Your task to perform on an android device: Open Yahoo.com Image 0: 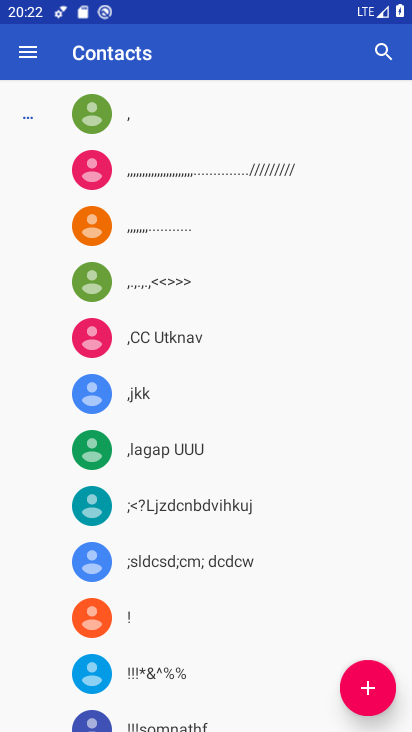
Step 0: drag from (159, 609) to (326, 216)
Your task to perform on an android device: Open Yahoo.com Image 1: 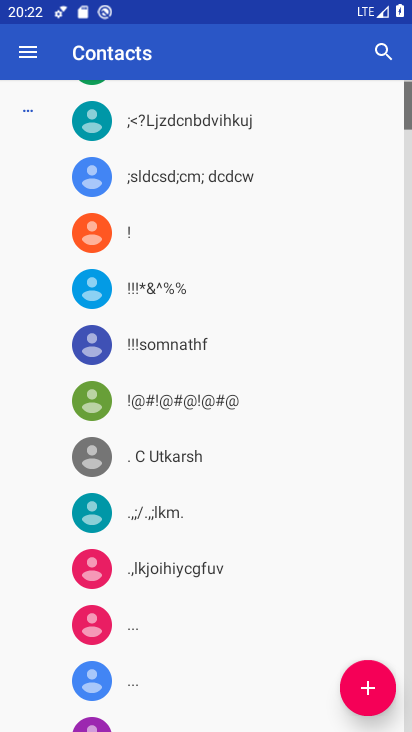
Step 1: press home button
Your task to perform on an android device: Open Yahoo.com Image 2: 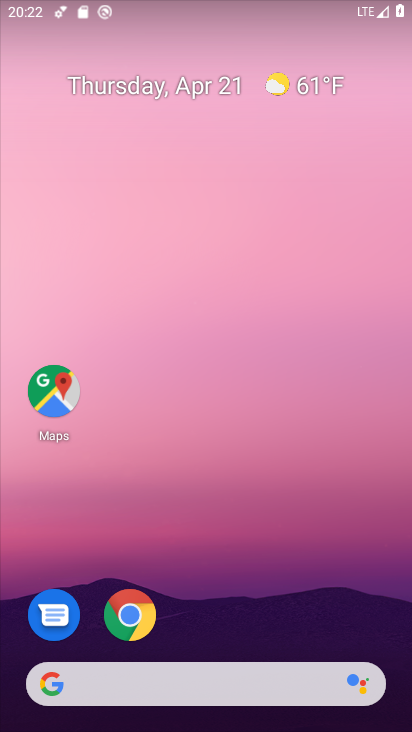
Step 2: click (126, 601)
Your task to perform on an android device: Open Yahoo.com Image 3: 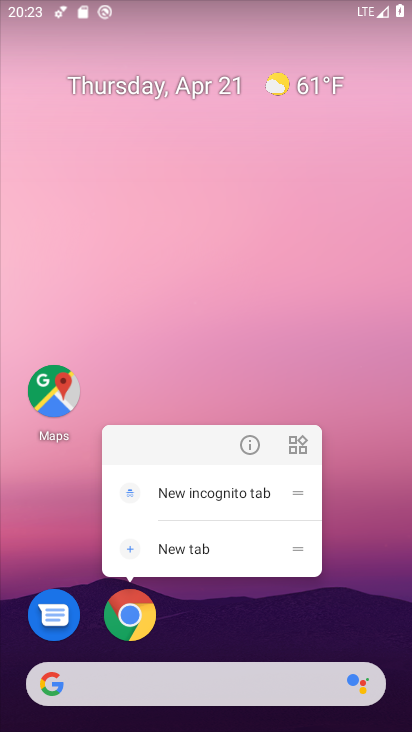
Step 3: click (250, 447)
Your task to perform on an android device: Open Yahoo.com Image 4: 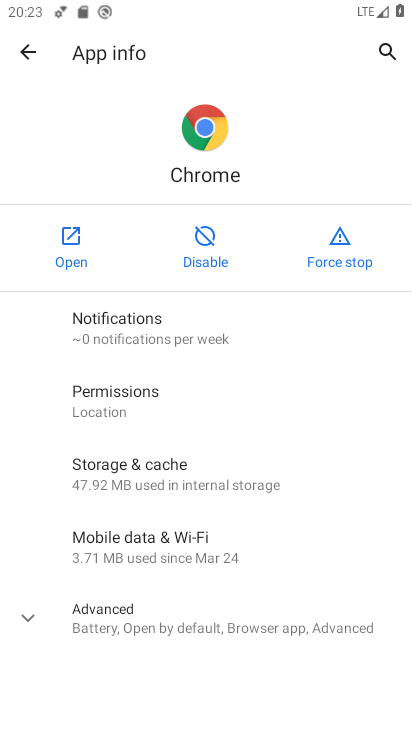
Step 4: click (69, 202)
Your task to perform on an android device: Open Yahoo.com Image 5: 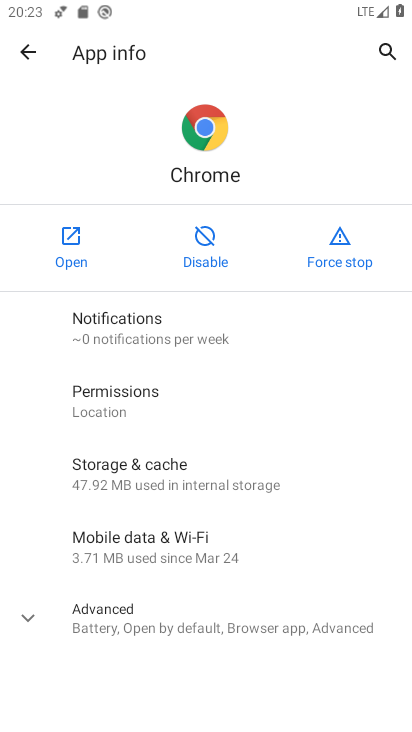
Step 5: click (74, 223)
Your task to perform on an android device: Open Yahoo.com Image 6: 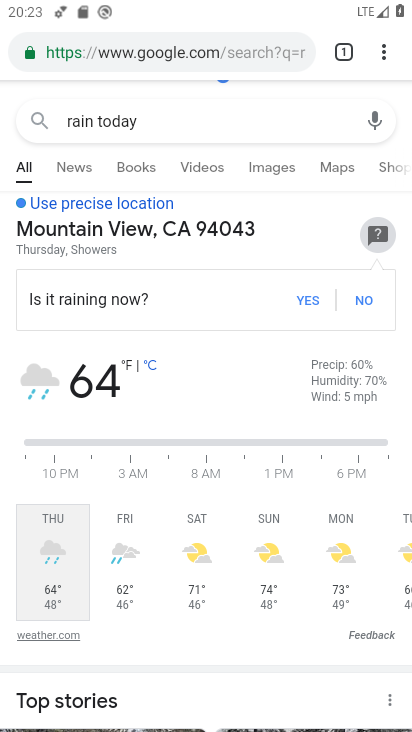
Step 6: click (329, 50)
Your task to perform on an android device: Open Yahoo.com Image 7: 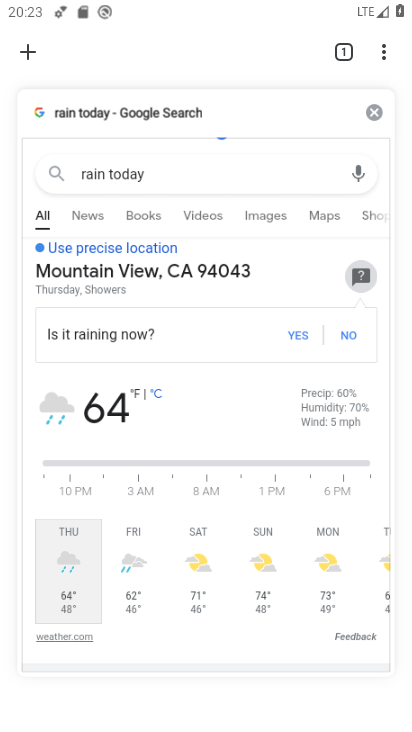
Step 7: click (39, 50)
Your task to perform on an android device: Open Yahoo.com Image 8: 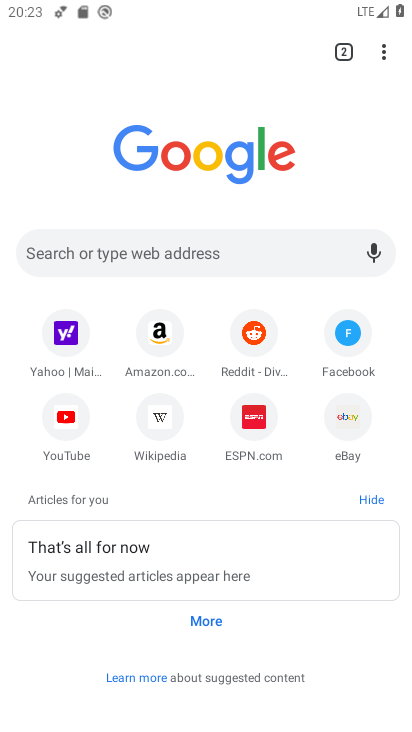
Step 8: click (75, 332)
Your task to perform on an android device: Open Yahoo.com Image 9: 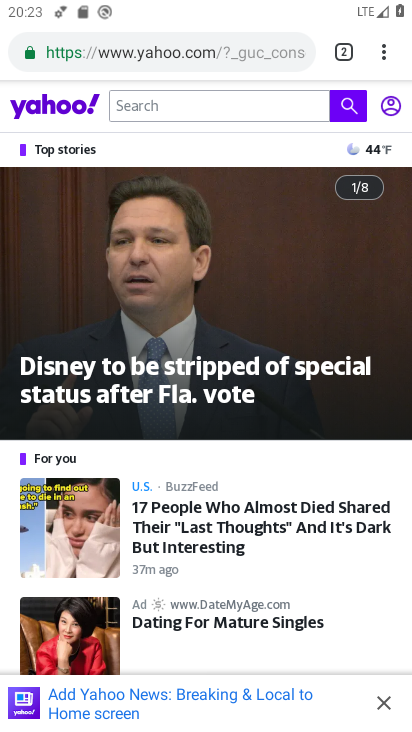
Step 9: task complete